Your task to perform on an android device: open chrome and create a bookmark for the current page Image 0: 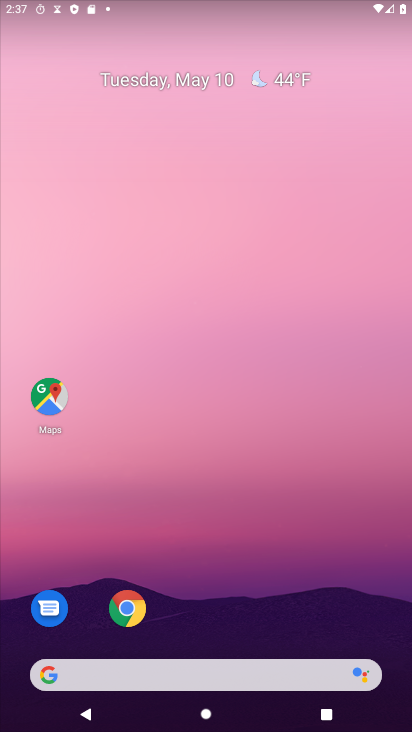
Step 0: click (125, 612)
Your task to perform on an android device: open chrome and create a bookmark for the current page Image 1: 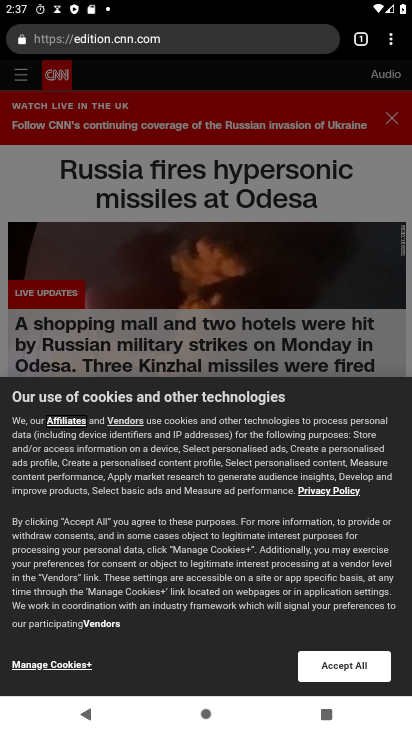
Step 1: click (390, 41)
Your task to perform on an android device: open chrome and create a bookmark for the current page Image 2: 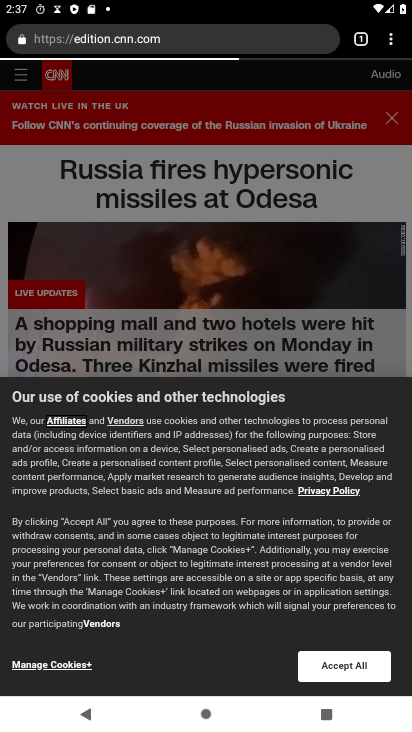
Step 2: click (394, 41)
Your task to perform on an android device: open chrome and create a bookmark for the current page Image 3: 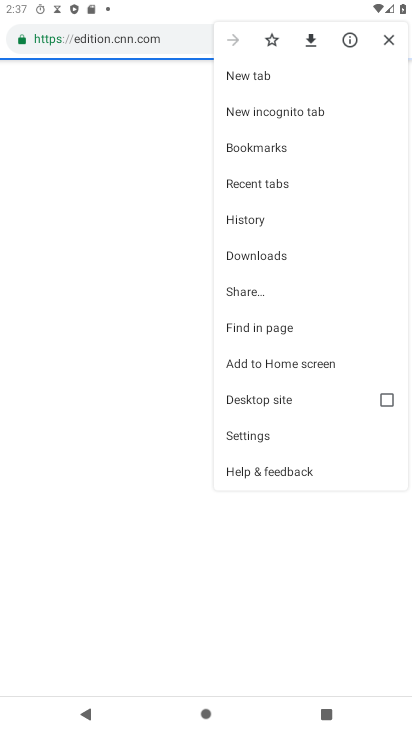
Step 3: click (279, 38)
Your task to perform on an android device: open chrome and create a bookmark for the current page Image 4: 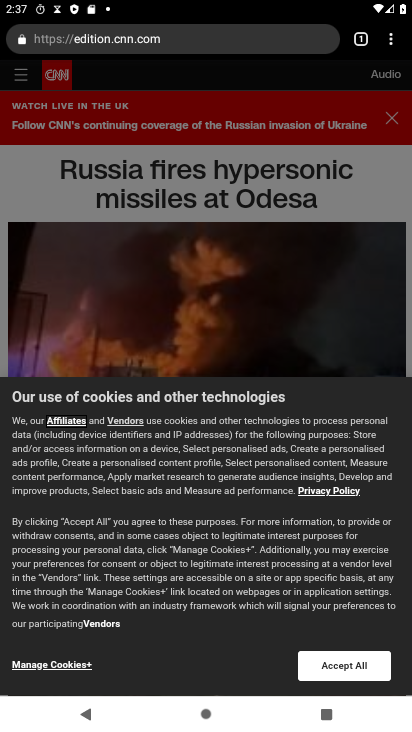
Step 4: click (394, 46)
Your task to perform on an android device: open chrome and create a bookmark for the current page Image 5: 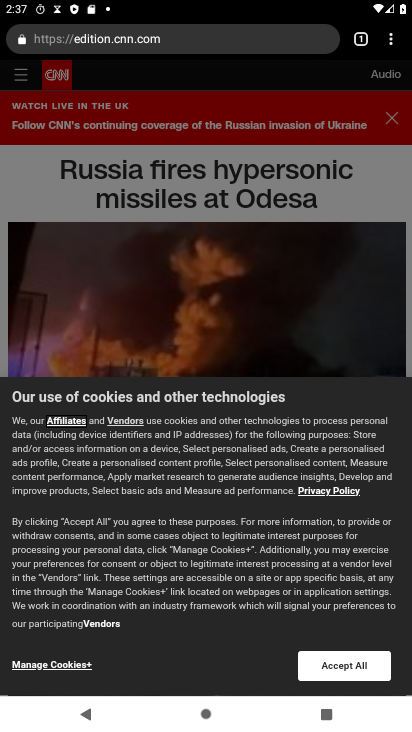
Step 5: click (394, 46)
Your task to perform on an android device: open chrome and create a bookmark for the current page Image 6: 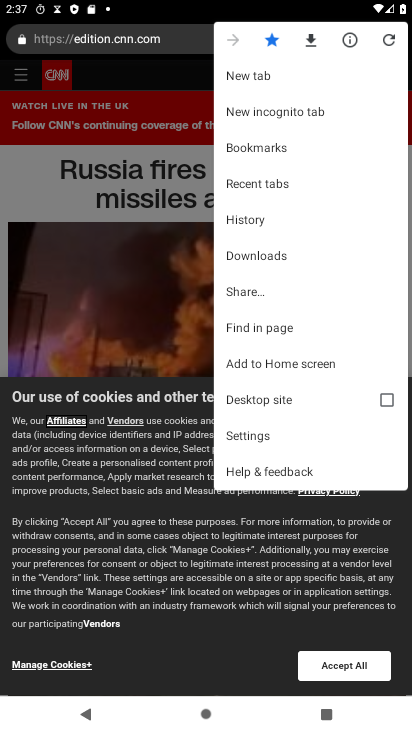
Step 6: task complete